Your task to perform on an android device: visit the assistant section in the google photos Image 0: 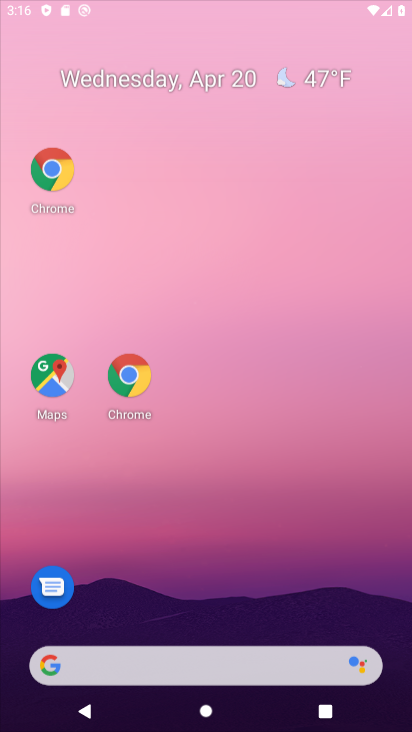
Step 0: drag from (291, 16) to (167, 8)
Your task to perform on an android device: visit the assistant section in the google photos Image 1: 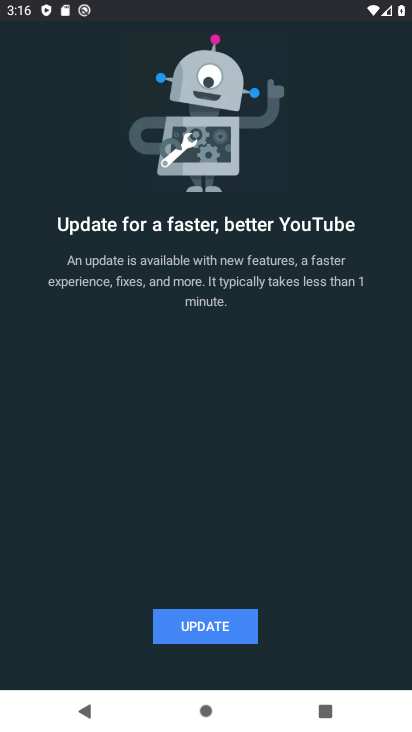
Step 1: press home button
Your task to perform on an android device: visit the assistant section in the google photos Image 2: 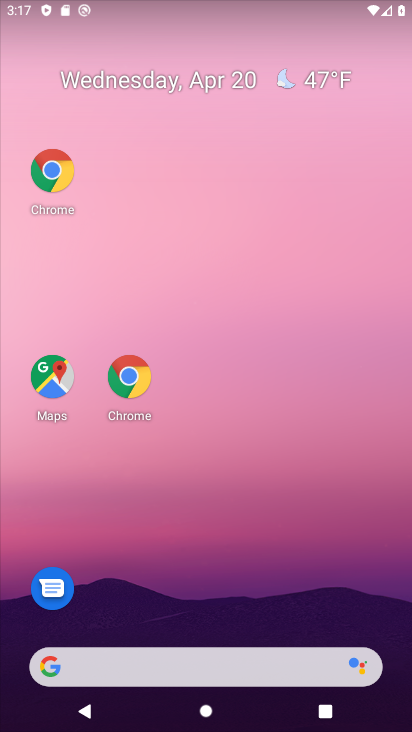
Step 2: drag from (134, 585) to (155, 7)
Your task to perform on an android device: visit the assistant section in the google photos Image 3: 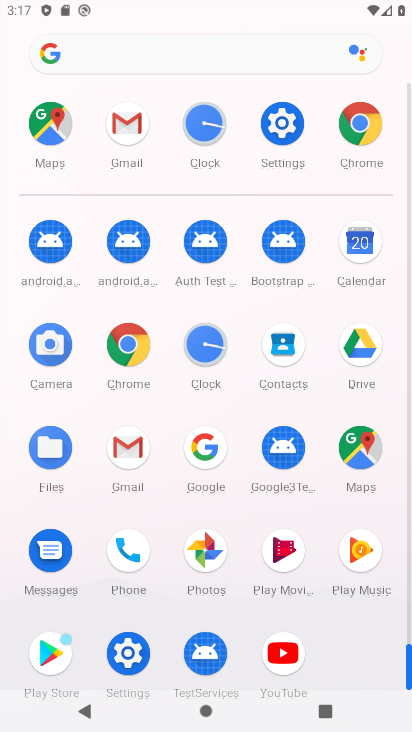
Step 3: click (201, 558)
Your task to perform on an android device: visit the assistant section in the google photos Image 4: 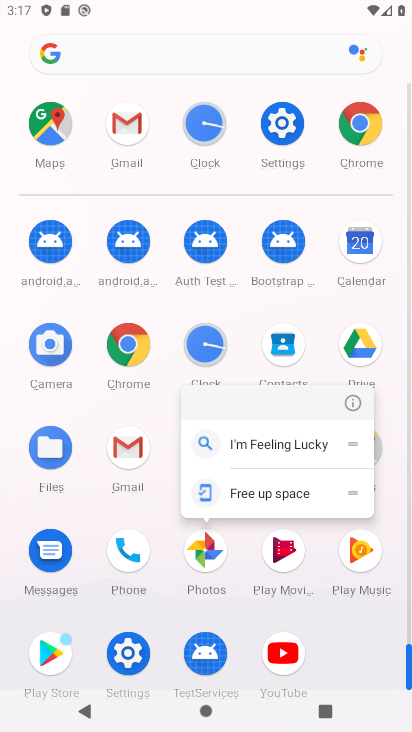
Step 4: click (201, 558)
Your task to perform on an android device: visit the assistant section in the google photos Image 5: 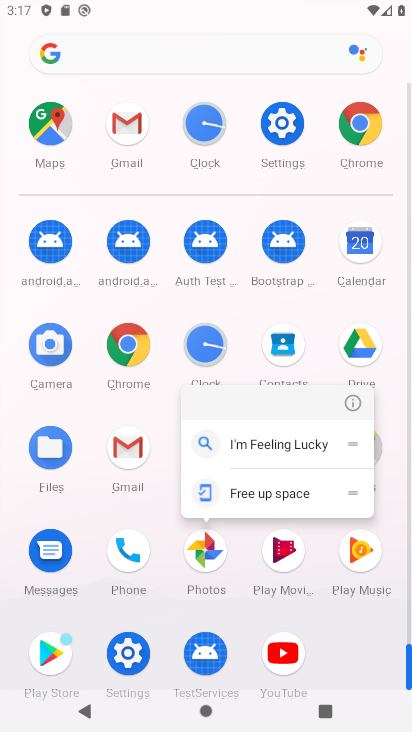
Step 5: click (201, 558)
Your task to perform on an android device: visit the assistant section in the google photos Image 6: 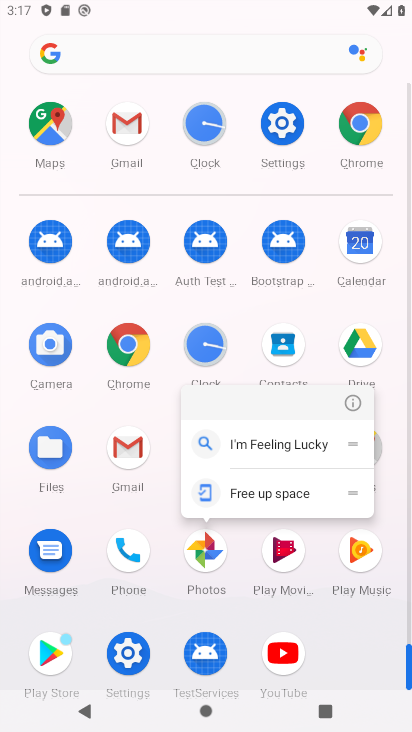
Step 6: click (220, 555)
Your task to perform on an android device: visit the assistant section in the google photos Image 7: 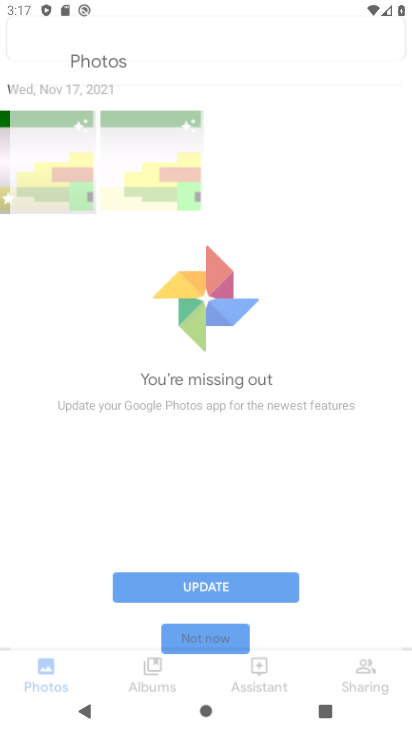
Step 7: click (220, 555)
Your task to perform on an android device: visit the assistant section in the google photos Image 8: 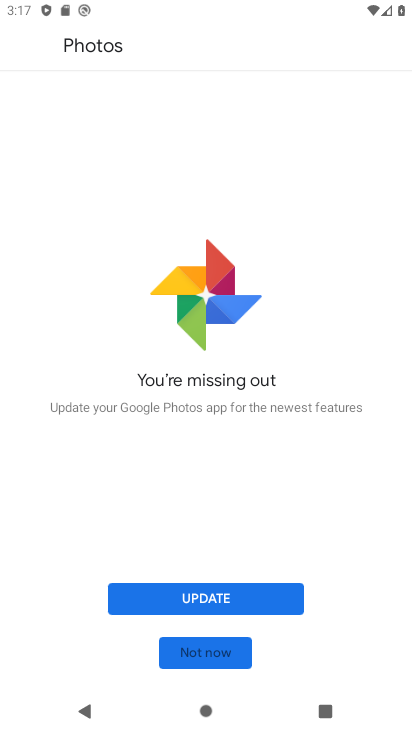
Step 8: click (232, 600)
Your task to perform on an android device: visit the assistant section in the google photos Image 9: 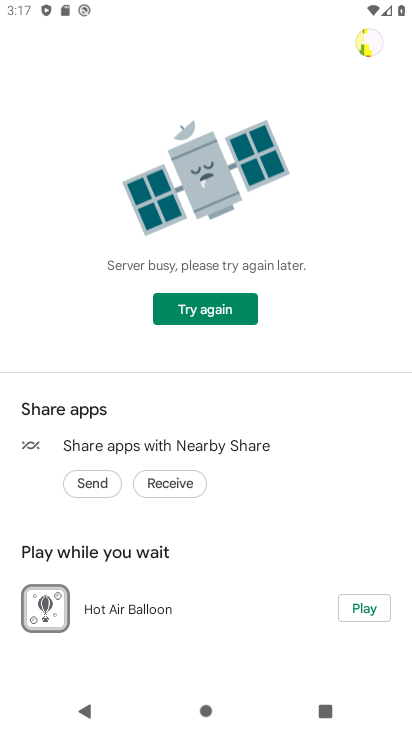
Step 9: click (198, 305)
Your task to perform on an android device: visit the assistant section in the google photos Image 10: 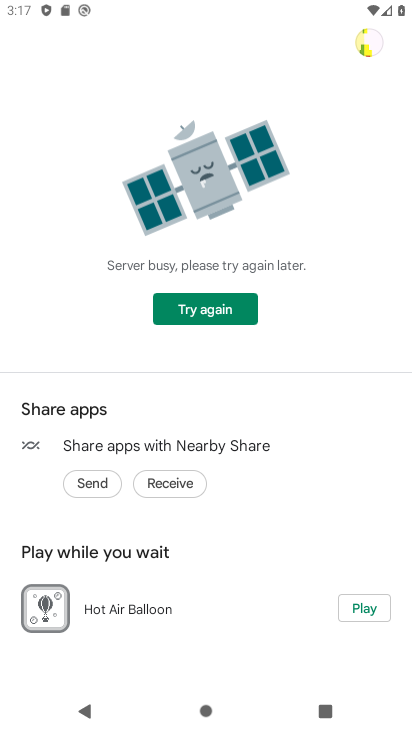
Step 10: press back button
Your task to perform on an android device: visit the assistant section in the google photos Image 11: 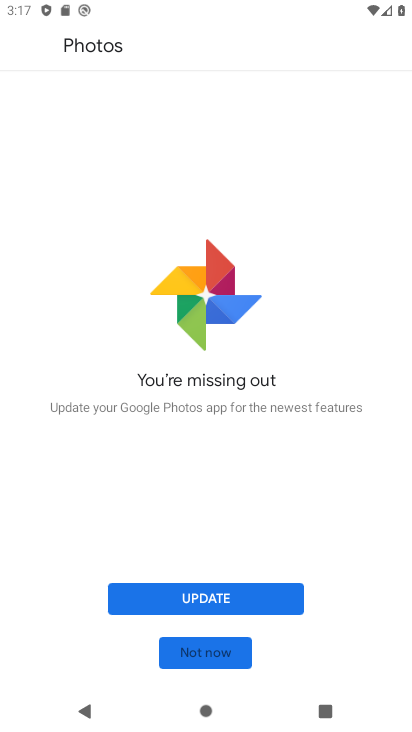
Step 11: click (192, 649)
Your task to perform on an android device: visit the assistant section in the google photos Image 12: 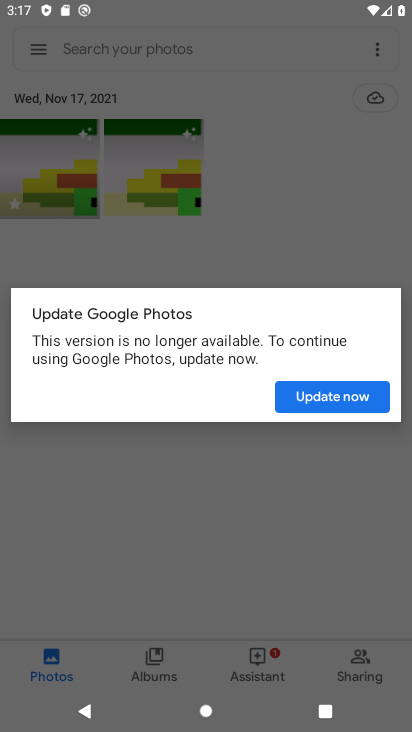
Step 12: click (292, 455)
Your task to perform on an android device: visit the assistant section in the google photos Image 13: 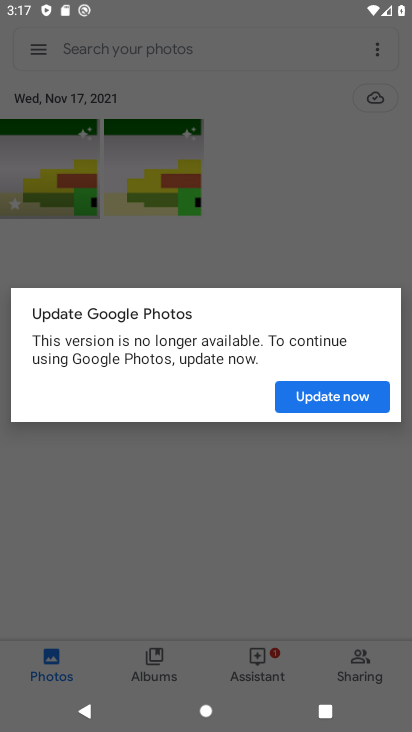
Step 13: click (326, 390)
Your task to perform on an android device: visit the assistant section in the google photos Image 14: 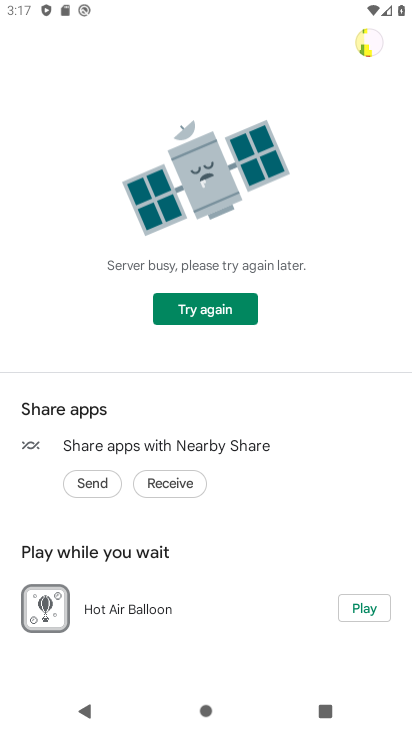
Step 14: click (201, 309)
Your task to perform on an android device: visit the assistant section in the google photos Image 15: 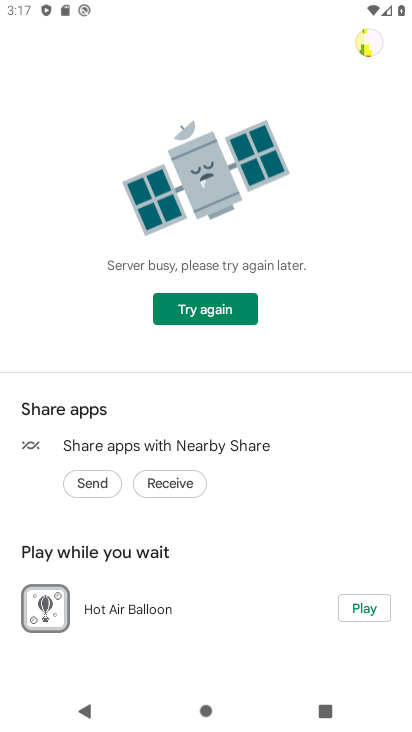
Step 15: press back button
Your task to perform on an android device: visit the assistant section in the google photos Image 16: 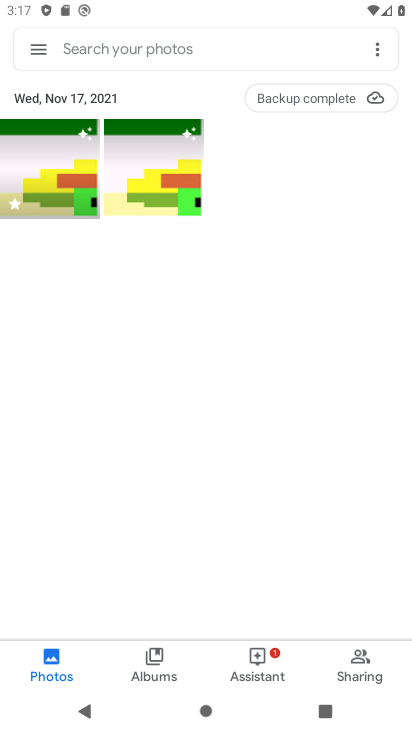
Step 16: click (271, 659)
Your task to perform on an android device: visit the assistant section in the google photos Image 17: 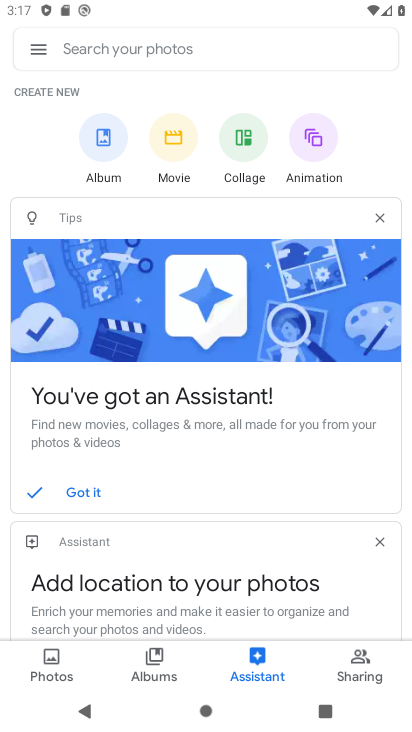
Step 17: task complete